Your task to perform on an android device: Go to Google Image 0: 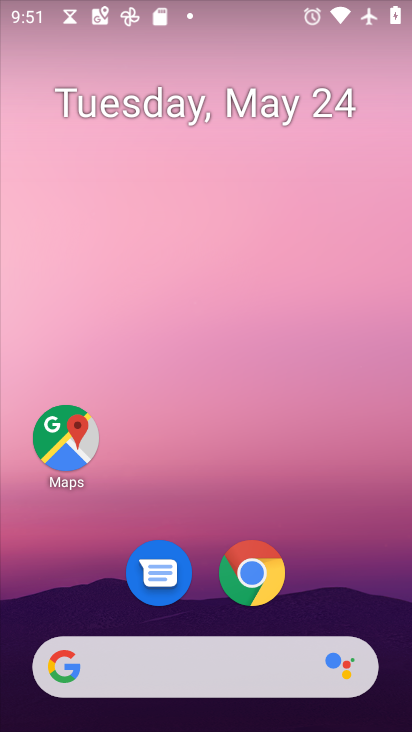
Step 0: drag from (319, 608) to (277, 13)
Your task to perform on an android device: Go to Google Image 1: 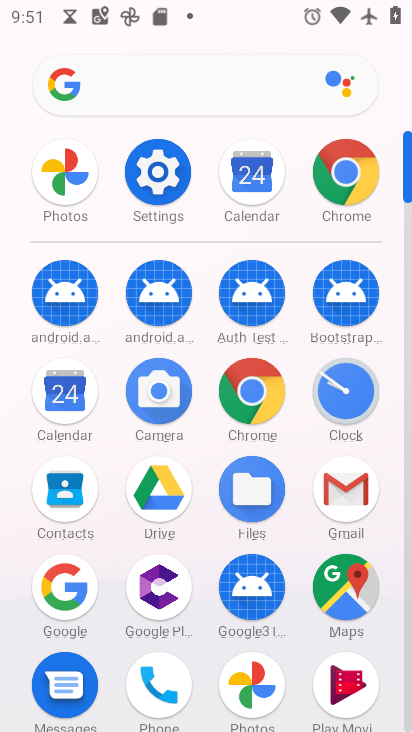
Step 1: click (52, 598)
Your task to perform on an android device: Go to Google Image 2: 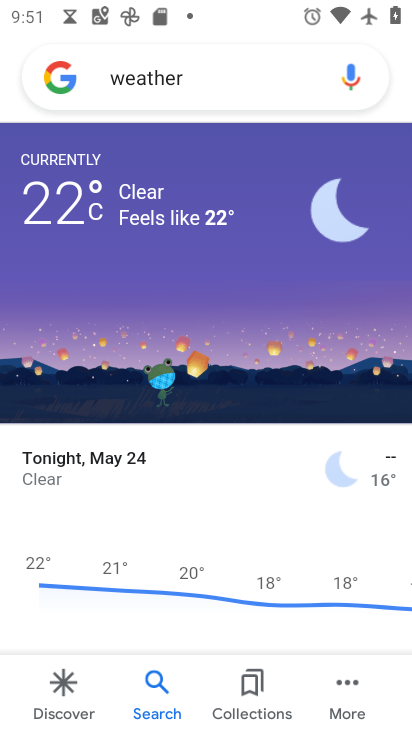
Step 2: task complete